Your task to perform on an android device: open chrome privacy settings Image 0: 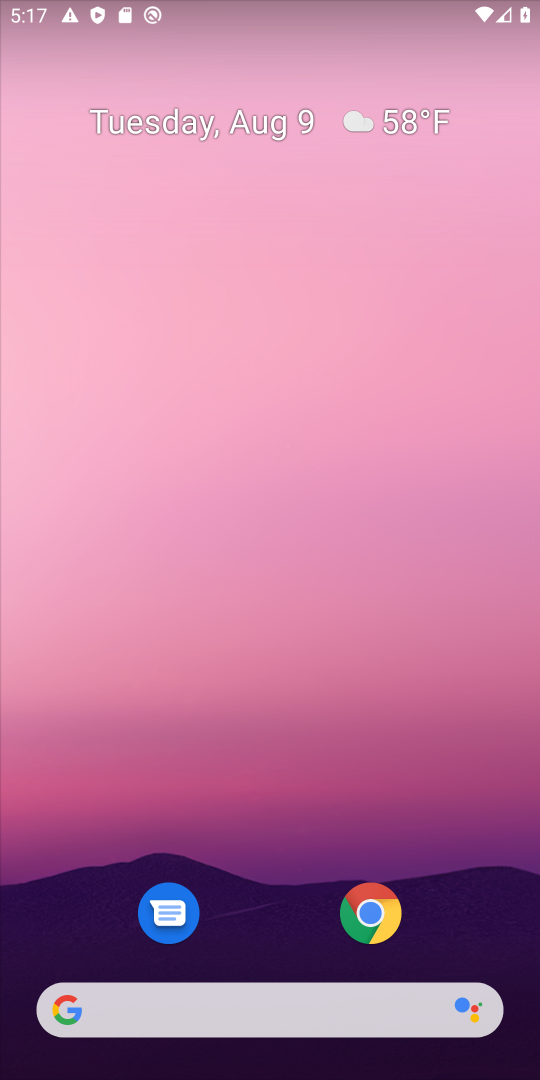
Step 0: click (364, 918)
Your task to perform on an android device: open chrome privacy settings Image 1: 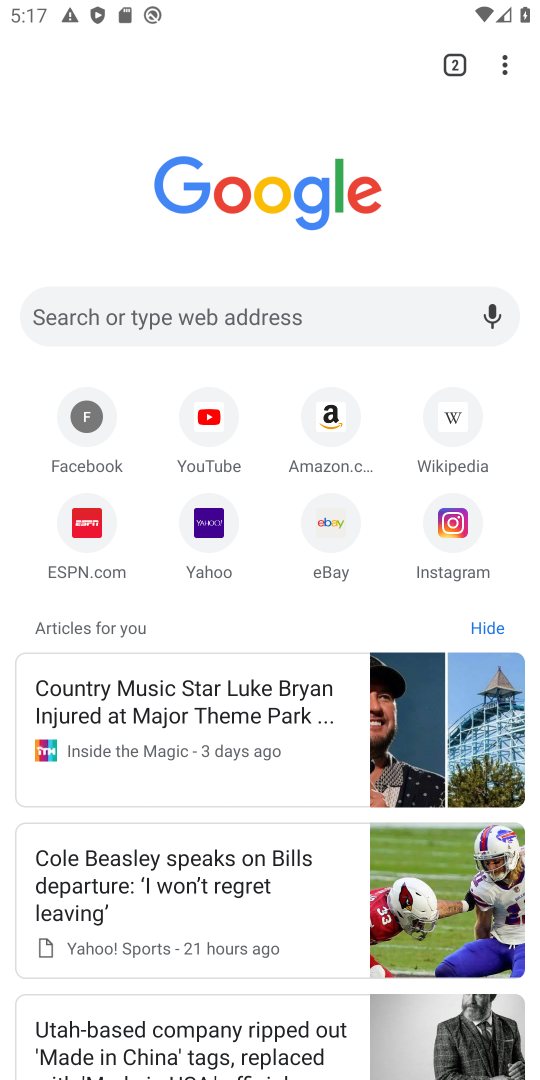
Step 1: click (498, 71)
Your task to perform on an android device: open chrome privacy settings Image 2: 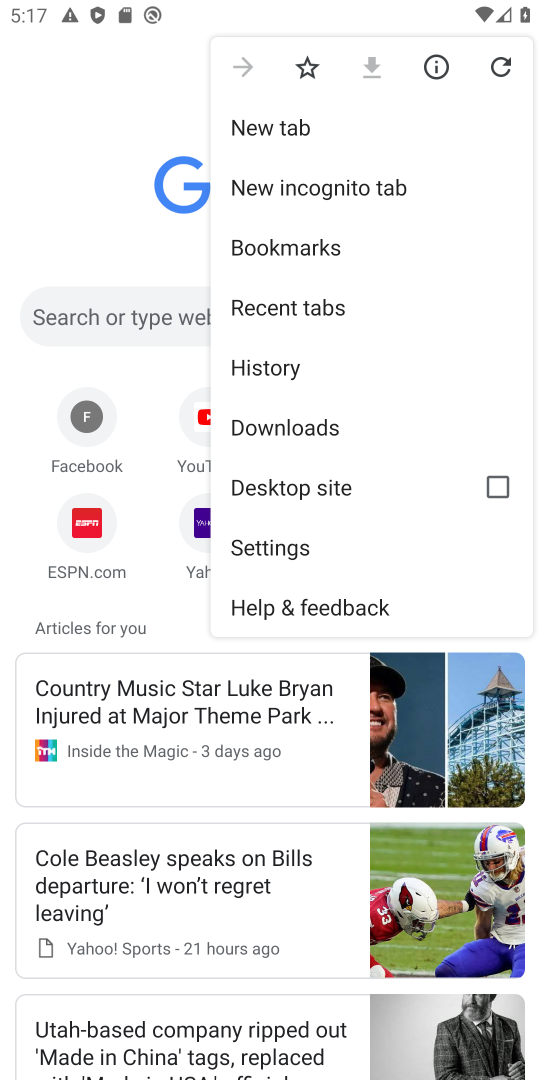
Step 2: click (318, 554)
Your task to perform on an android device: open chrome privacy settings Image 3: 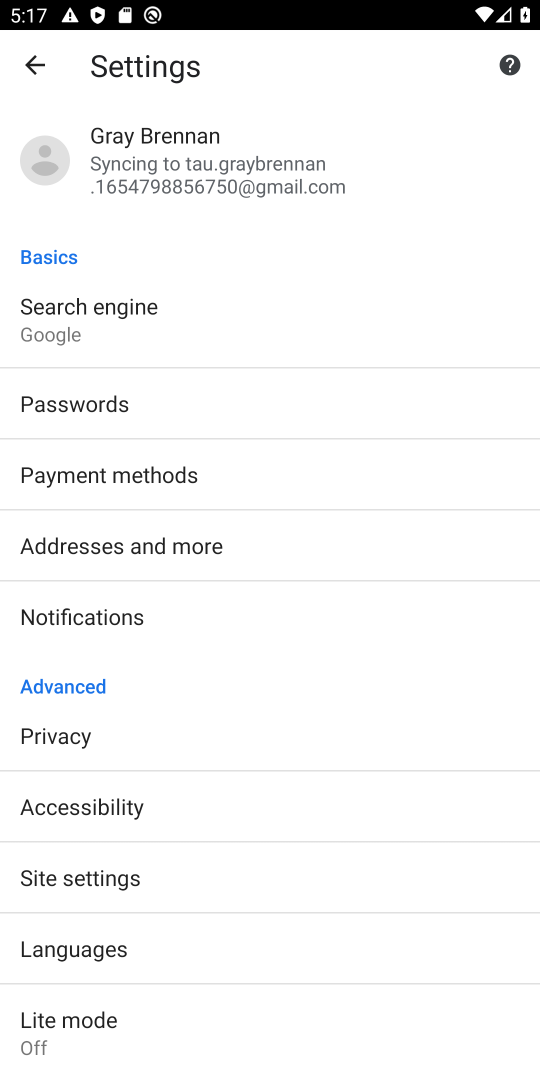
Step 3: click (105, 748)
Your task to perform on an android device: open chrome privacy settings Image 4: 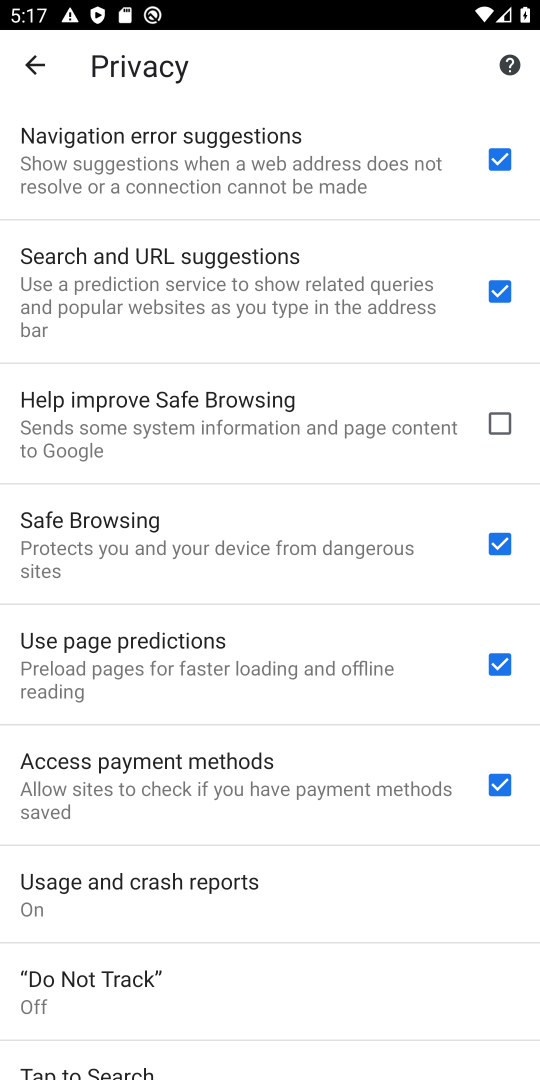
Step 4: task complete